Your task to perform on an android device: see creations saved in the google photos Image 0: 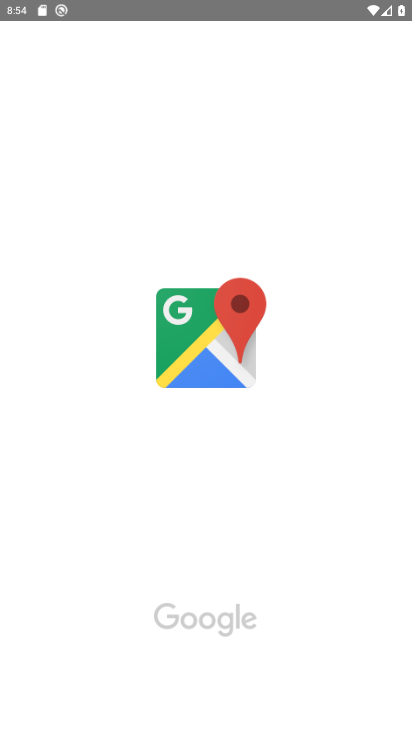
Step 0: press home button
Your task to perform on an android device: see creations saved in the google photos Image 1: 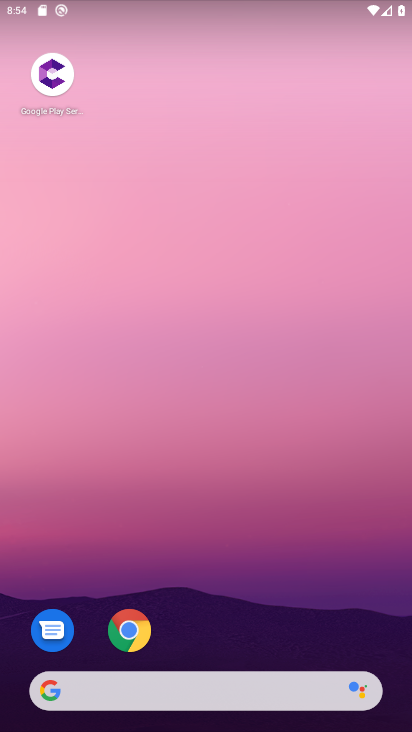
Step 1: drag from (7, 714) to (332, 379)
Your task to perform on an android device: see creations saved in the google photos Image 2: 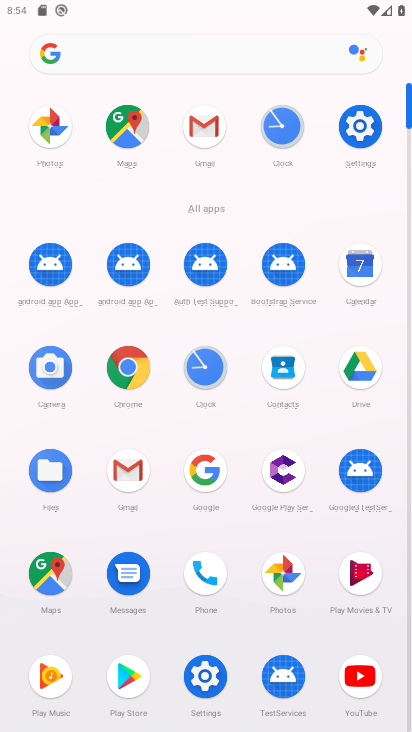
Step 2: click (277, 579)
Your task to perform on an android device: see creations saved in the google photos Image 3: 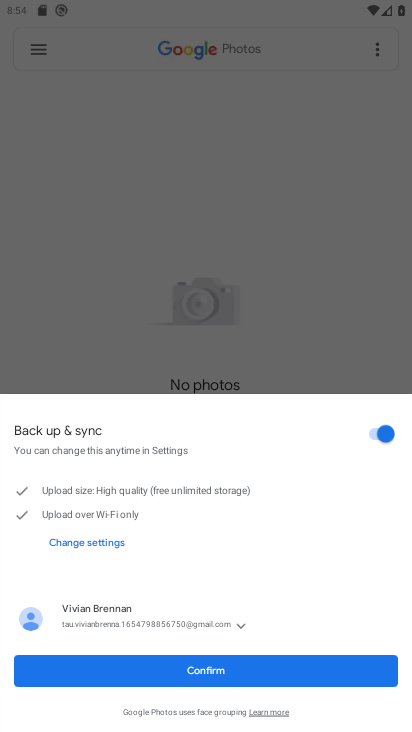
Step 3: click (131, 665)
Your task to perform on an android device: see creations saved in the google photos Image 4: 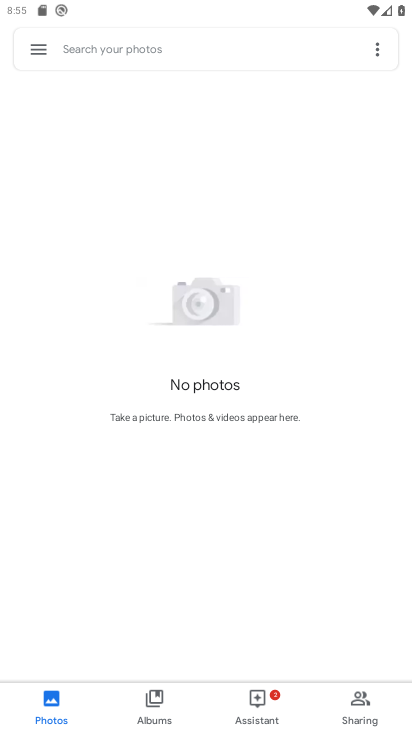
Step 4: click (28, 47)
Your task to perform on an android device: see creations saved in the google photos Image 5: 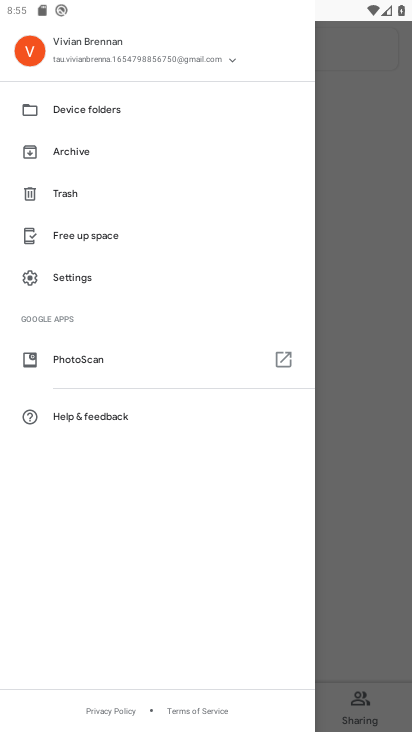
Step 5: click (379, 336)
Your task to perform on an android device: see creations saved in the google photos Image 6: 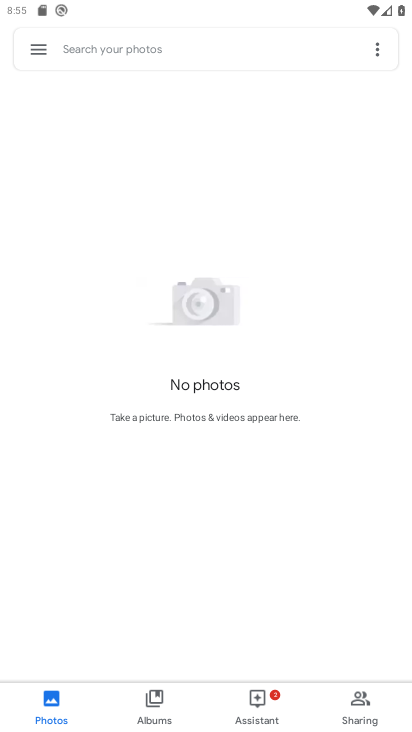
Step 6: click (382, 39)
Your task to perform on an android device: see creations saved in the google photos Image 7: 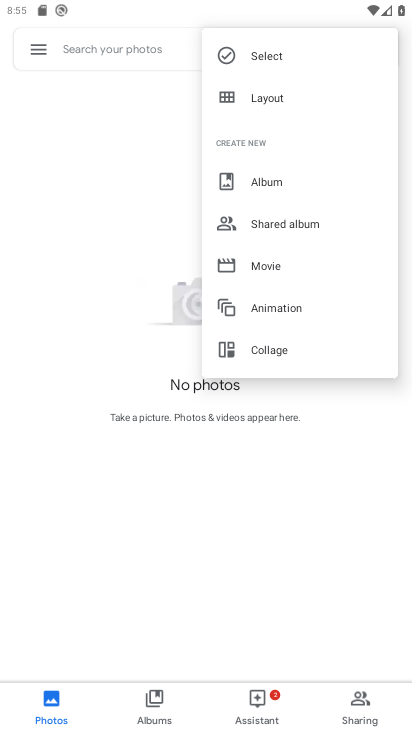
Step 7: click (276, 182)
Your task to perform on an android device: see creations saved in the google photos Image 8: 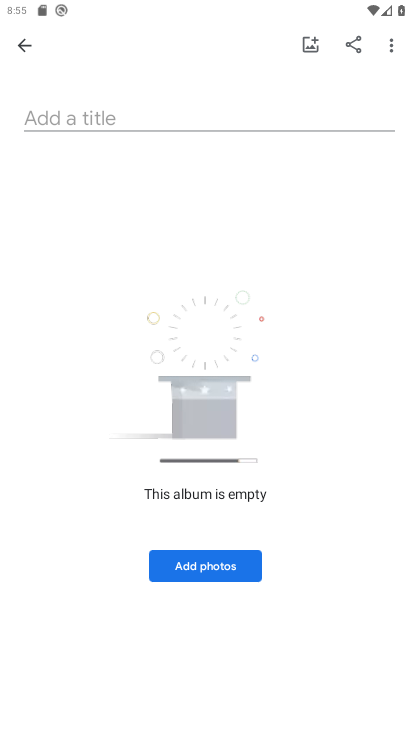
Step 8: click (19, 39)
Your task to perform on an android device: see creations saved in the google photos Image 9: 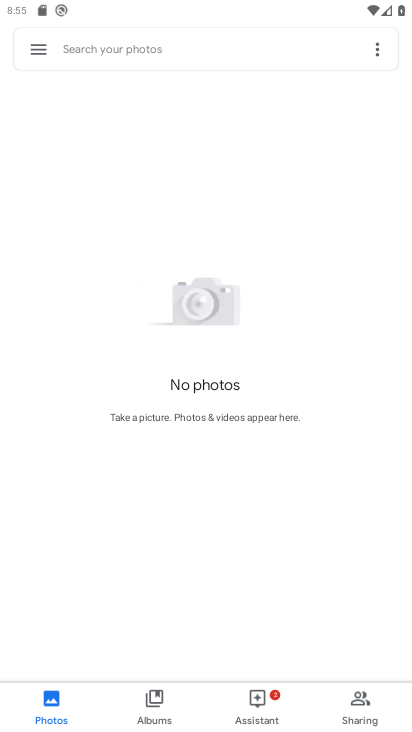
Step 9: click (360, 707)
Your task to perform on an android device: see creations saved in the google photos Image 10: 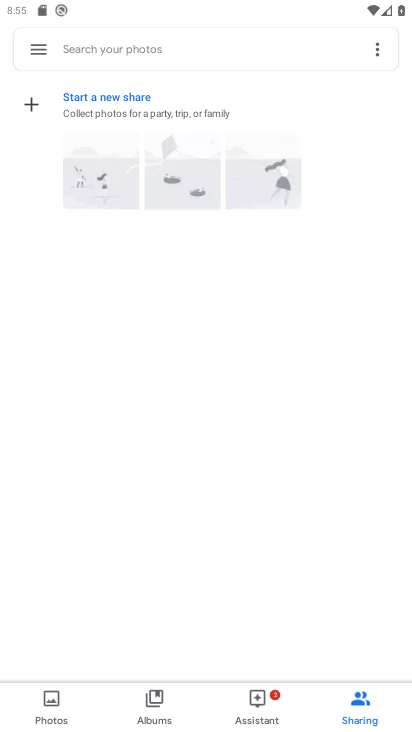
Step 10: click (252, 695)
Your task to perform on an android device: see creations saved in the google photos Image 11: 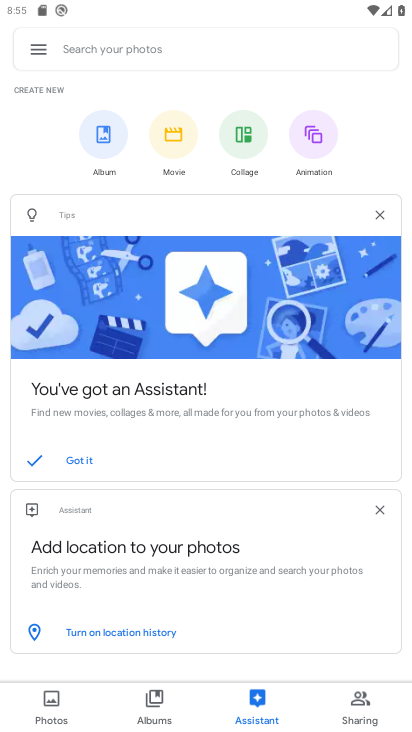
Step 11: click (124, 706)
Your task to perform on an android device: see creations saved in the google photos Image 12: 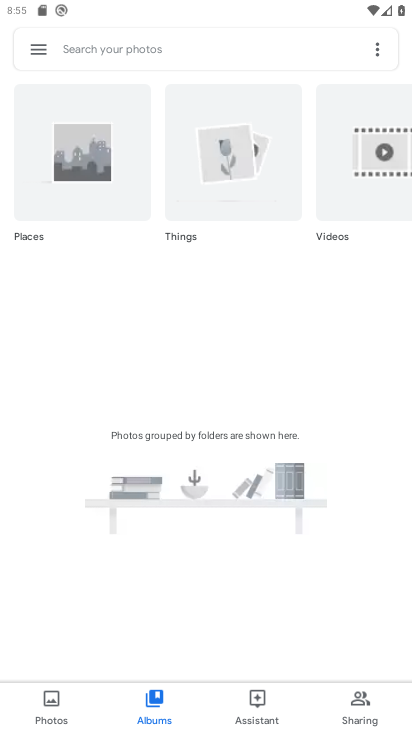
Step 12: click (235, 706)
Your task to perform on an android device: see creations saved in the google photos Image 13: 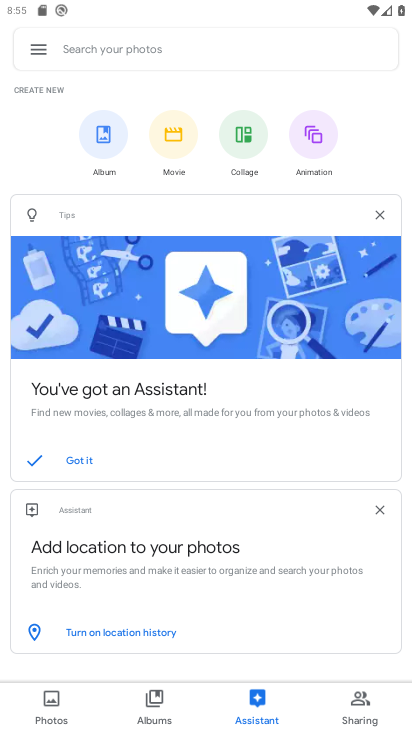
Step 13: task complete